Your task to perform on an android device: Search for pizza restaurants on Maps Image 0: 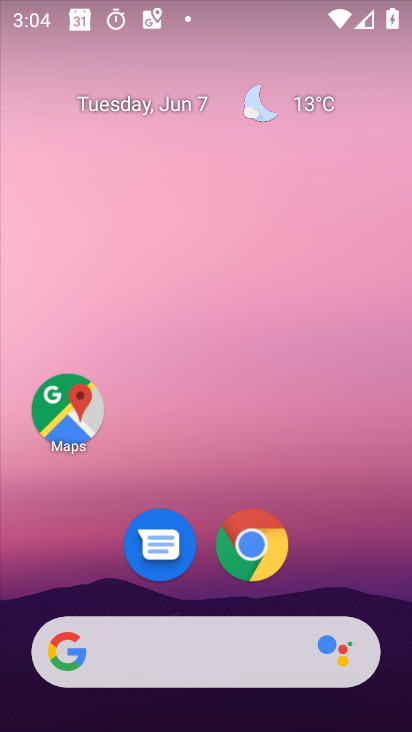
Step 0: click (73, 422)
Your task to perform on an android device: Search for pizza restaurants on Maps Image 1: 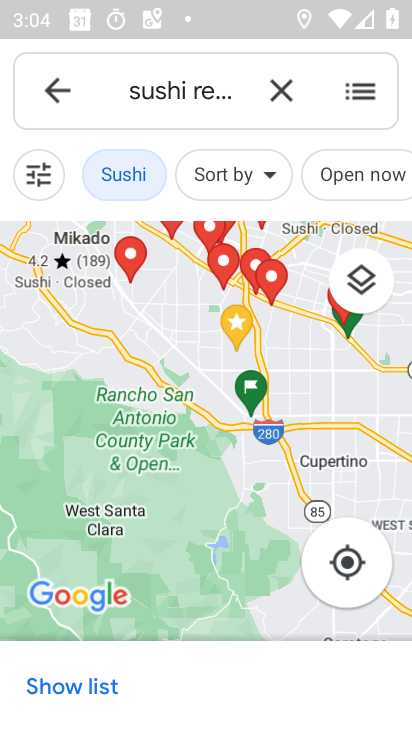
Step 1: click (283, 97)
Your task to perform on an android device: Search for pizza restaurants on Maps Image 2: 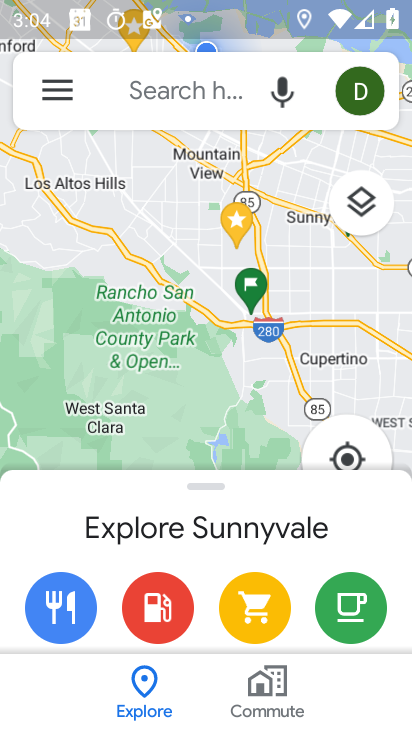
Step 2: click (207, 98)
Your task to perform on an android device: Search for pizza restaurants on Maps Image 3: 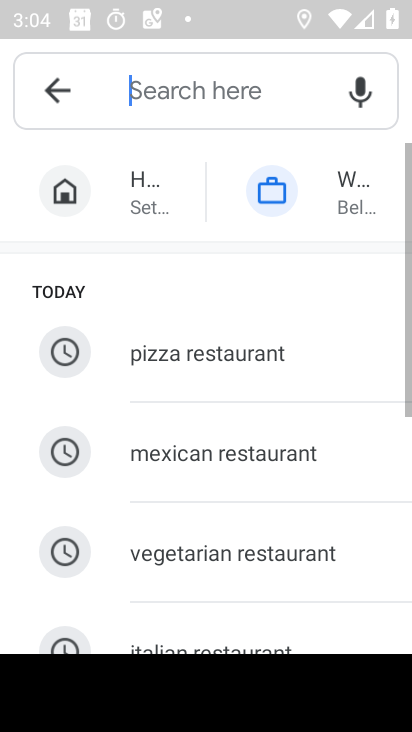
Step 3: click (253, 333)
Your task to perform on an android device: Search for pizza restaurants on Maps Image 4: 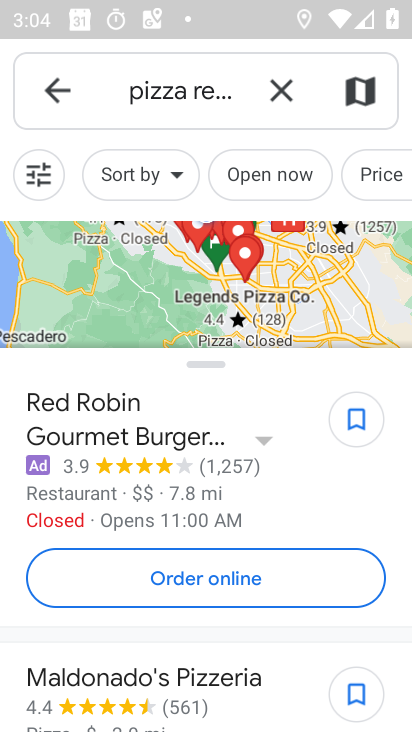
Step 4: task complete